Your task to perform on an android device: turn off location history Image 0: 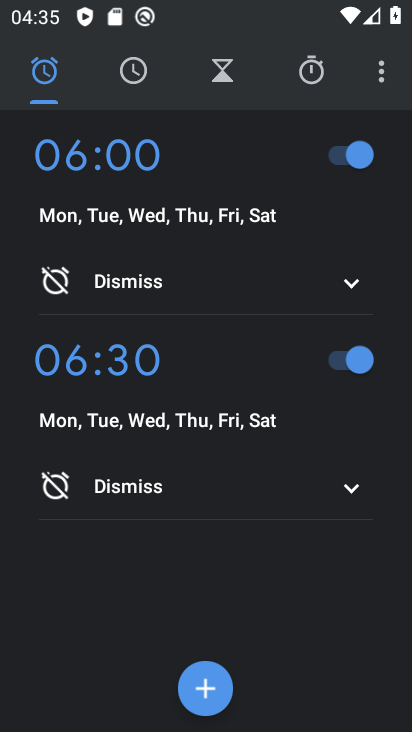
Step 0: press home button
Your task to perform on an android device: turn off location history Image 1: 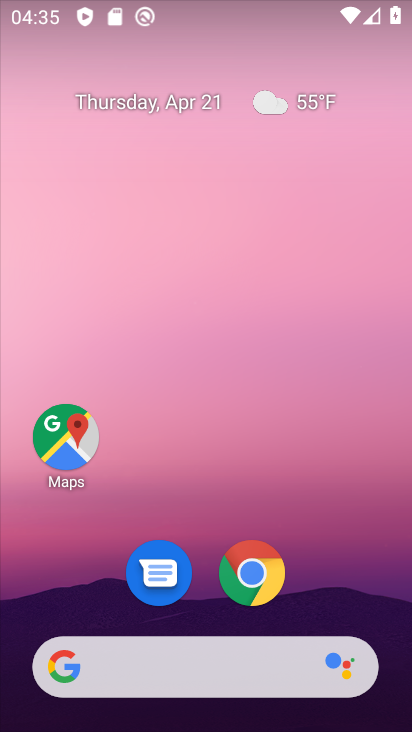
Step 1: click (62, 437)
Your task to perform on an android device: turn off location history Image 2: 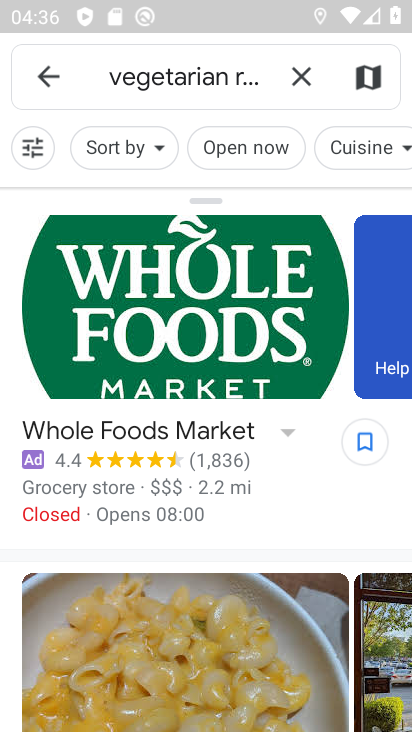
Step 2: press back button
Your task to perform on an android device: turn off location history Image 3: 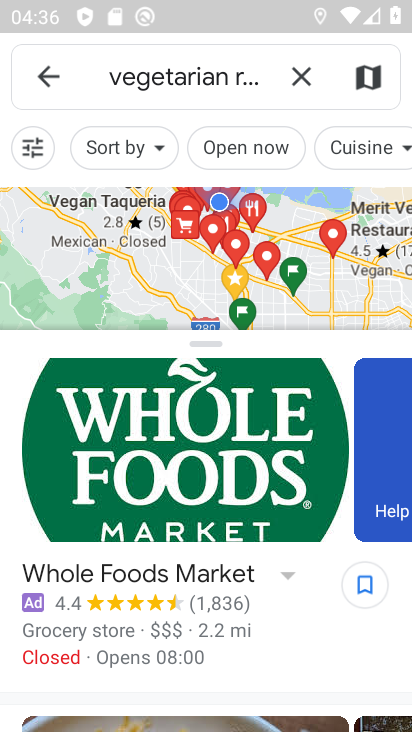
Step 3: press back button
Your task to perform on an android device: turn off location history Image 4: 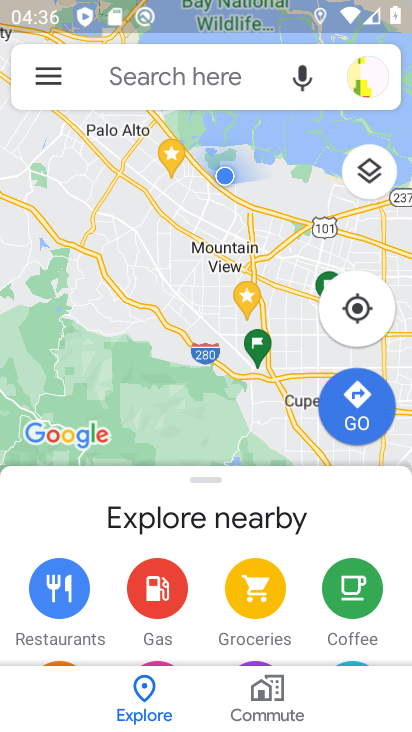
Step 4: click (44, 76)
Your task to perform on an android device: turn off location history Image 5: 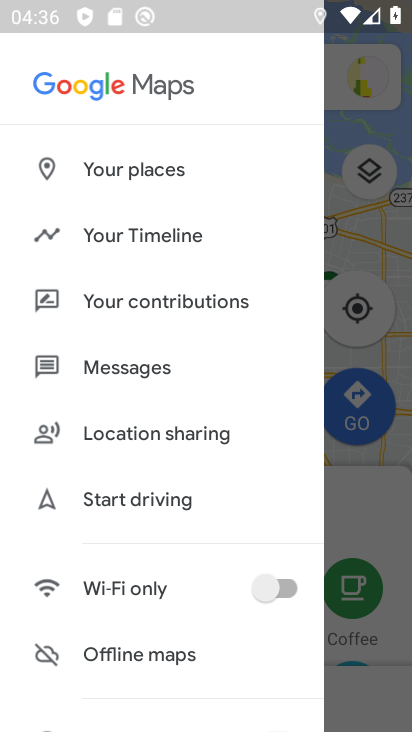
Step 5: drag from (232, 629) to (261, 379)
Your task to perform on an android device: turn off location history Image 6: 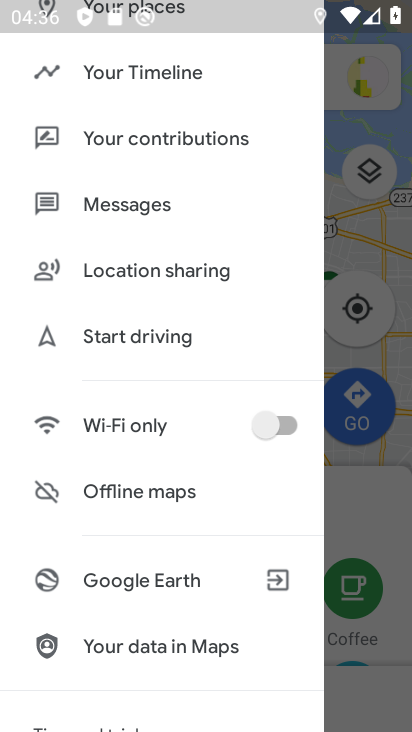
Step 6: drag from (259, 639) to (199, 349)
Your task to perform on an android device: turn off location history Image 7: 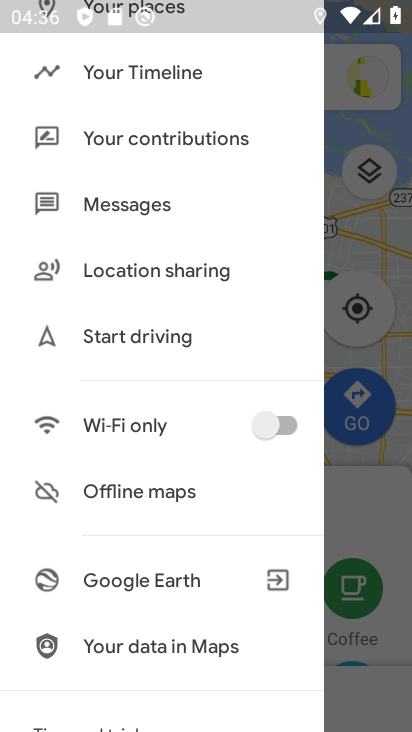
Step 7: drag from (216, 583) to (221, 226)
Your task to perform on an android device: turn off location history Image 8: 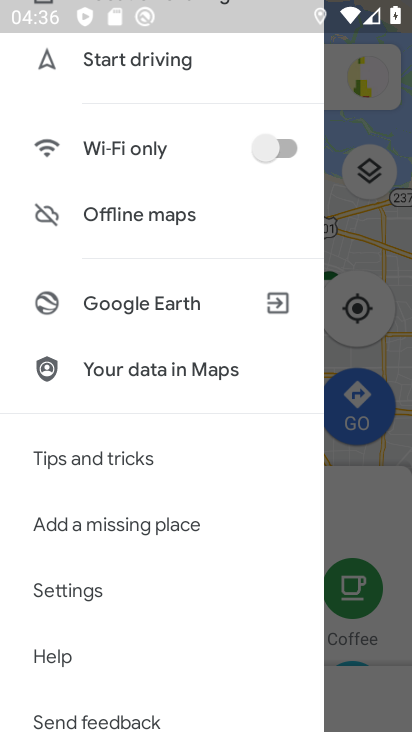
Step 8: click (66, 585)
Your task to perform on an android device: turn off location history Image 9: 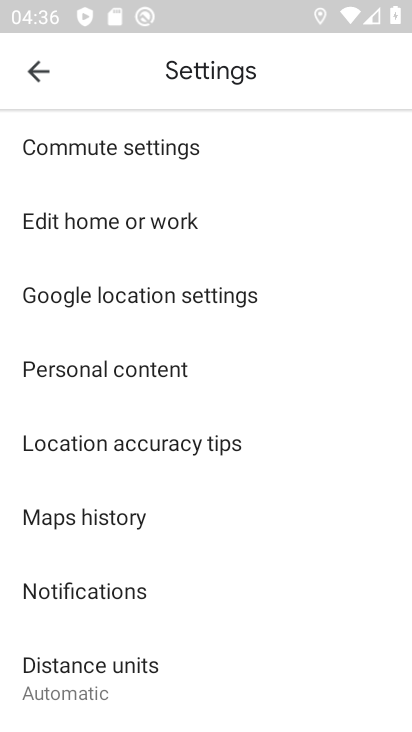
Step 9: click (73, 367)
Your task to perform on an android device: turn off location history Image 10: 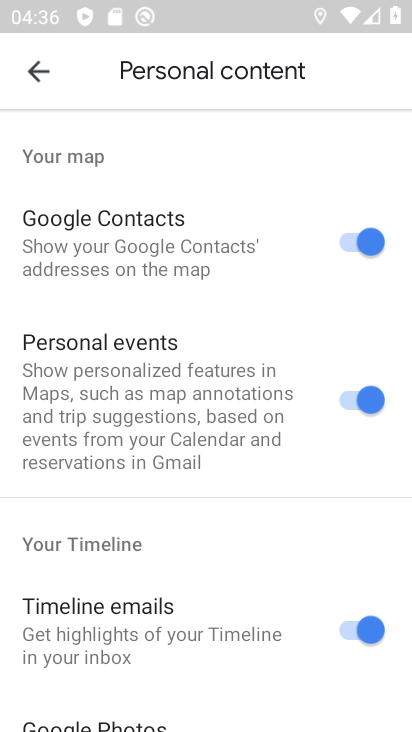
Step 10: drag from (292, 606) to (315, 272)
Your task to perform on an android device: turn off location history Image 11: 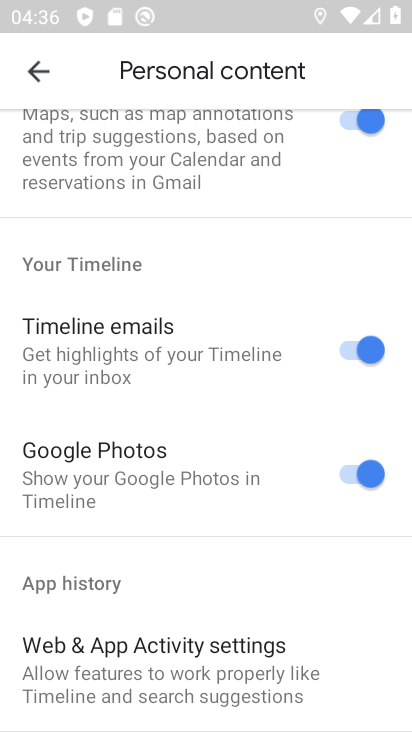
Step 11: drag from (308, 582) to (302, 251)
Your task to perform on an android device: turn off location history Image 12: 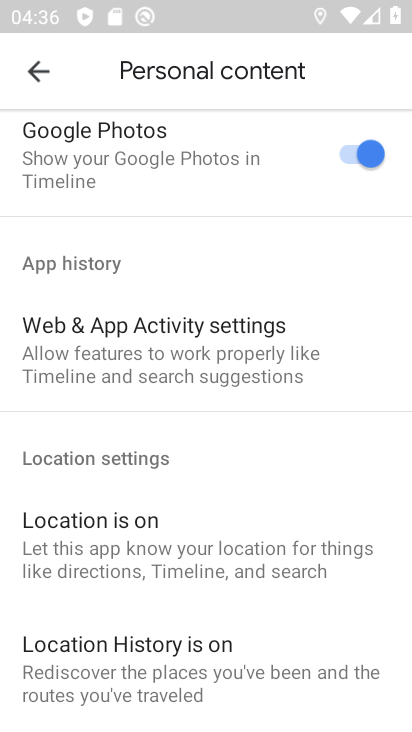
Step 12: drag from (321, 578) to (329, 325)
Your task to perform on an android device: turn off location history Image 13: 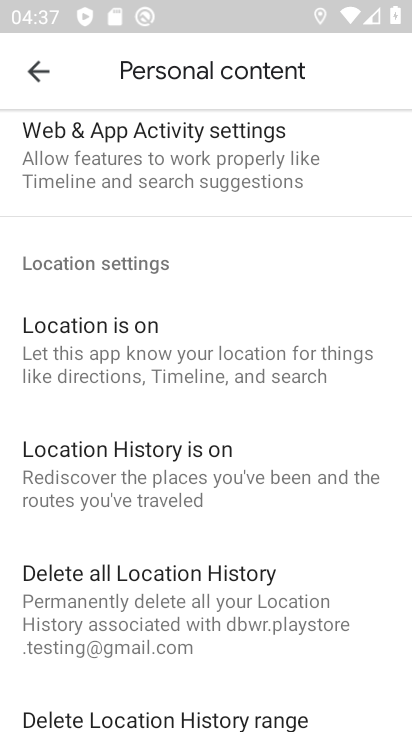
Step 13: click (87, 463)
Your task to perform on an android device: turn off location history Image 14: 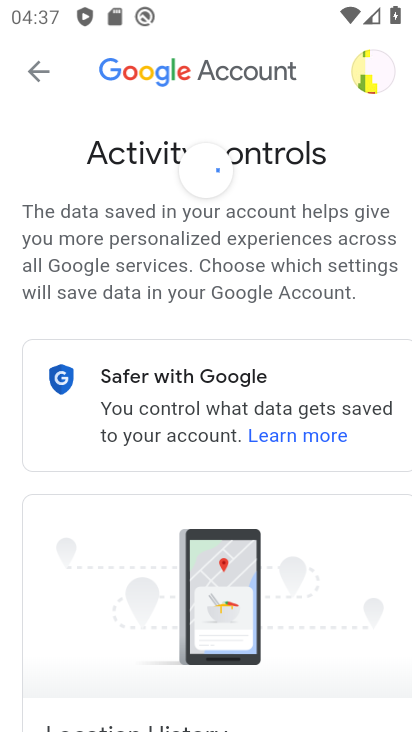
Step 14: drag from (278, 587) to (309, 257)
Your task to perform on an android device: turn off location history Image 15: 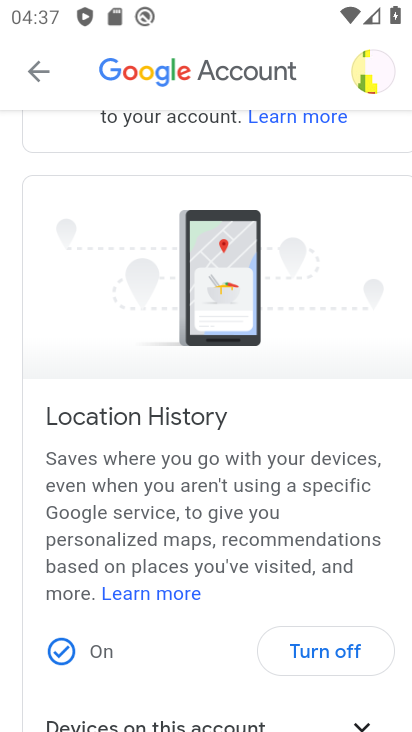
Step 15: click (324, 648)
Your task to perform on an android device: turn off location history Image 16: 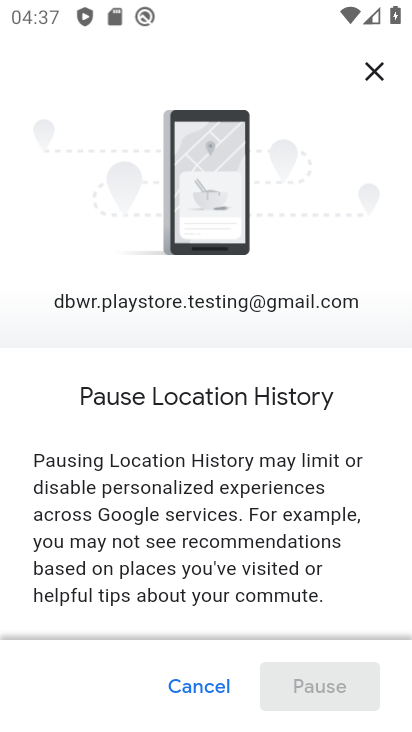
Step 16: drag from (309, 564) to (302, 161)
Your task to perform on an android device: turn off location history Image 17: 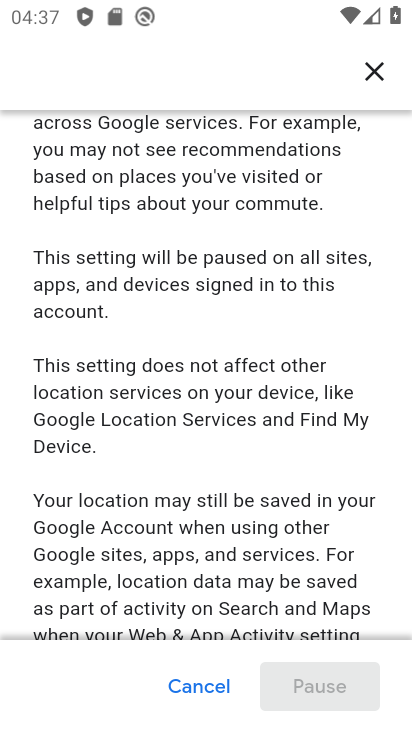
Step 17: drag from (268, 507) to (296, 156)
Your task to perform on an android device: turn off location history Image 18: 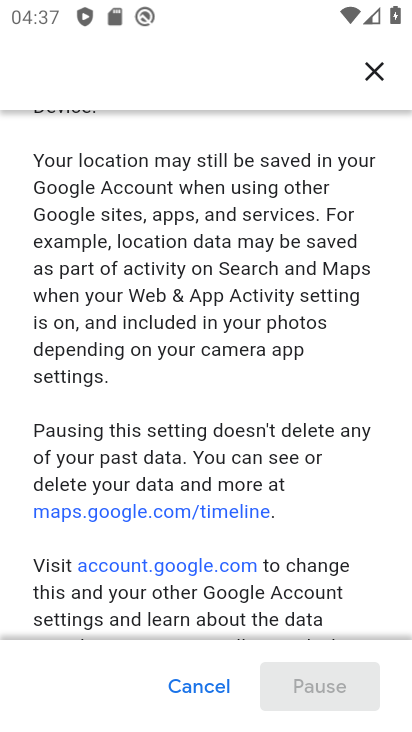
Step 18: drag from (315, 591) to (310, 229)
Your task to perform on an android device: turn off location history Image 19: 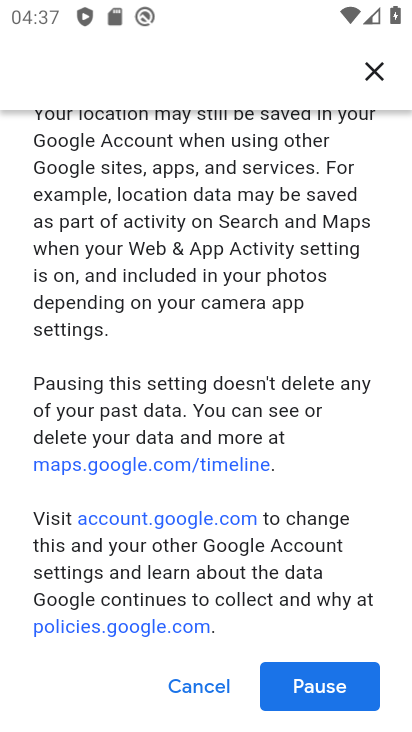
Step 19: click (310, 692)
Your task to perform on an android device: turn off location history Image 20: 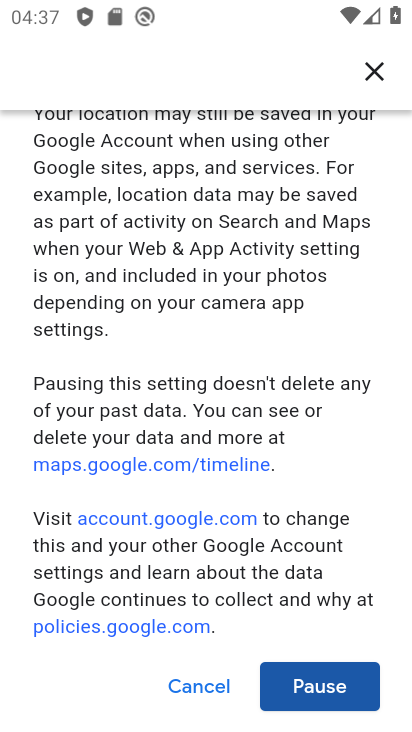
Step 20: click (315, 688)
Your task to perform on an android device: turn off location history Image 21: 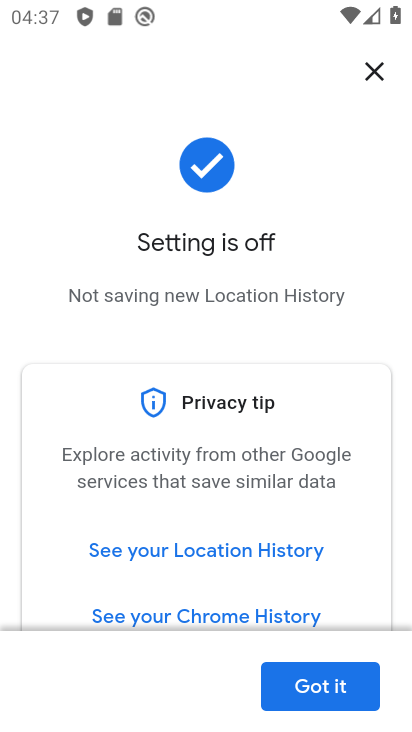
Step 21: click (312, 685)
Your task to perform on an android device: turn off location history Image 22: 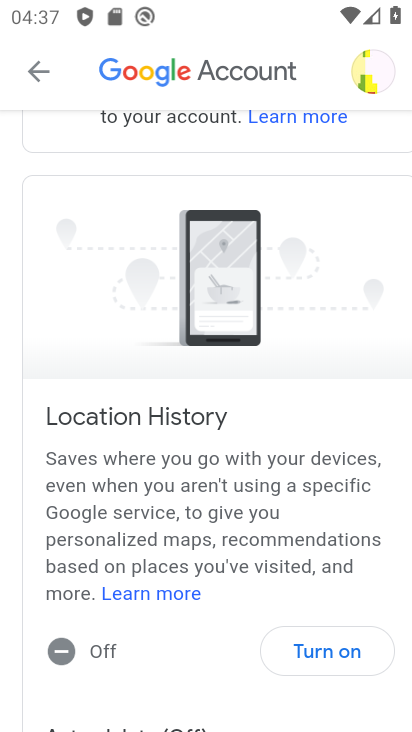
Step 22: task complete